Your task to perform on an android device: Turn on the flashlight Image 0: 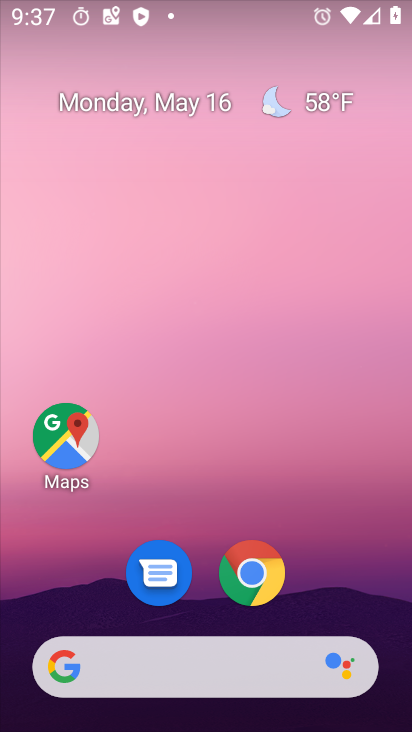
Step 0: drag from (363, 586) to (78, 69)
Your task to perform on an android device: Turn on the flashlight Image 1: 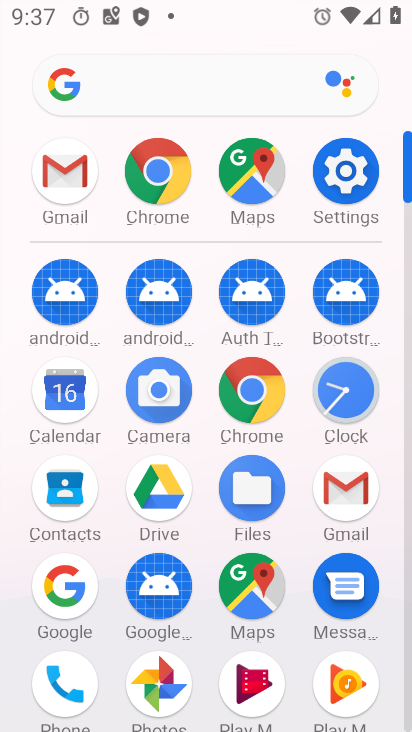
Step 1: click (212, 593)
Your task to perform on an android device: Turn on the flashlight Image 2: 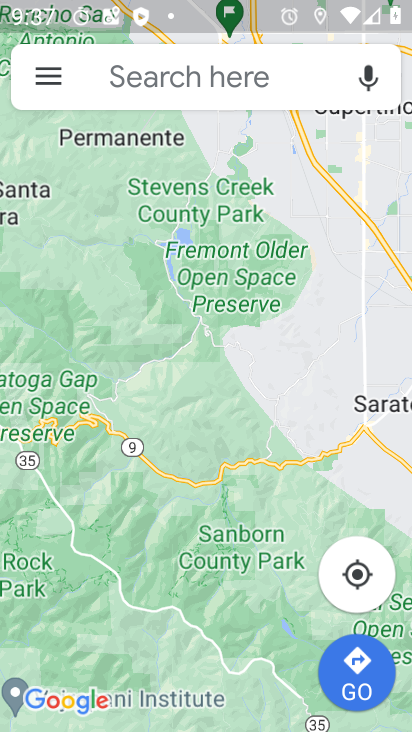
Step 2: press back button
Your task to perform on an android device: Turn on the flashlight Image 3: 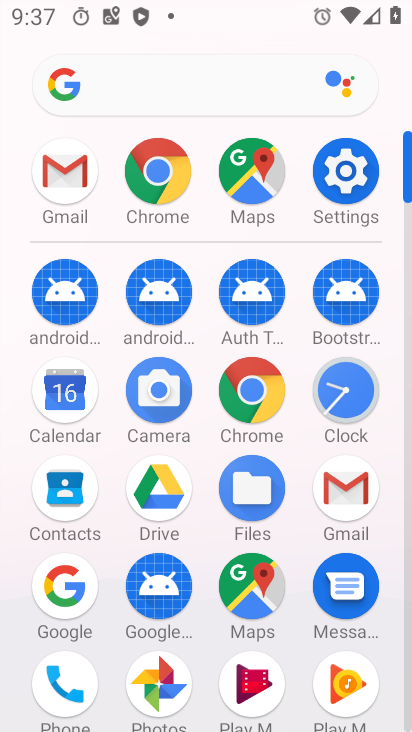
Step 3: click (347, 170)
Your task to perform on an android device: Turn on the flashlight Image 4: 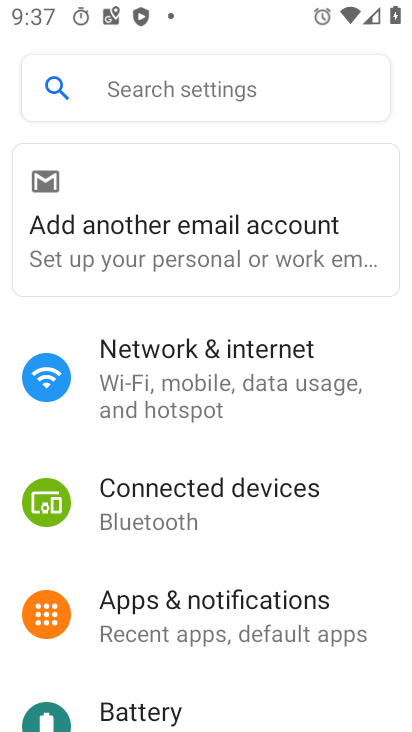
Step 4: task complete